Your task to perform on an android device: turn off smart reply in the gmail app Image 0: 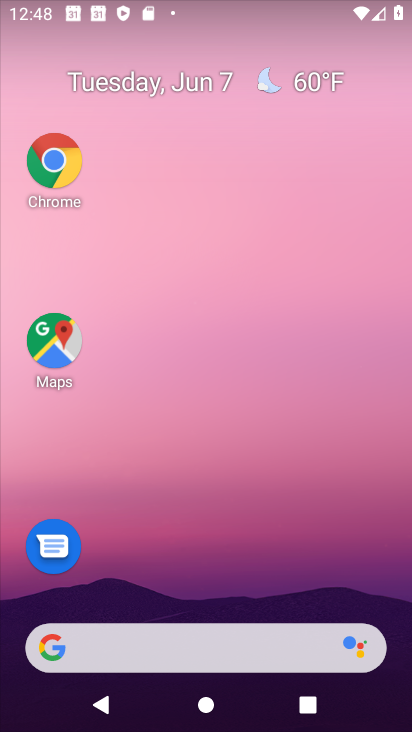
Step 0: drag from (198, 550) to (282, 113)
Your task to perform on an android device: turn off smart reply in the gmail app Image 1: 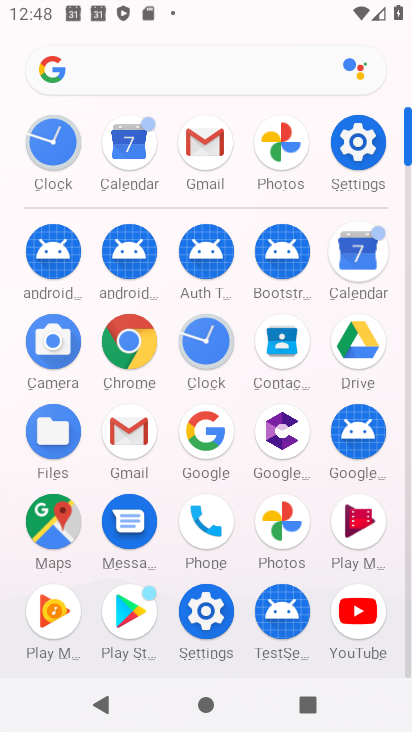
Step 1: click (133, 429)
Your task to perform on an android device: turn off smart reply in the gmail app Image 2: 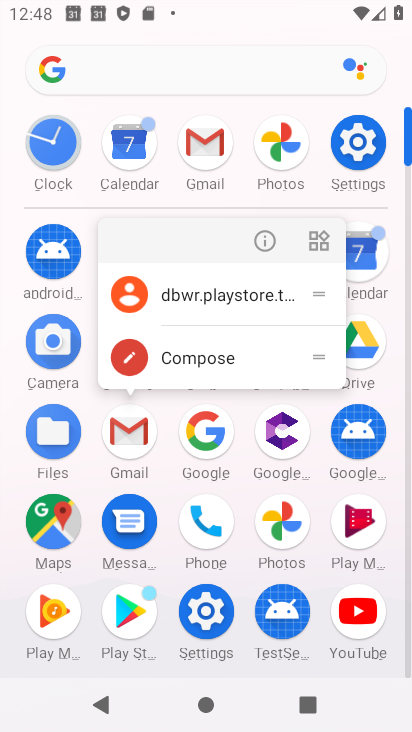
Step 2: click (260, 238)
Your task to perform on an android device: turn off smart reply in the gmail app Image 3: 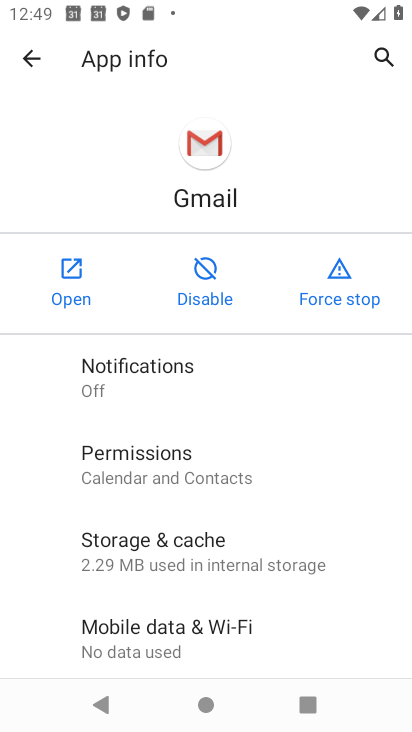
Step 3: click (80, 275)
Your task to perform on an android device: turn off smart reply in the gmail app Image 4: 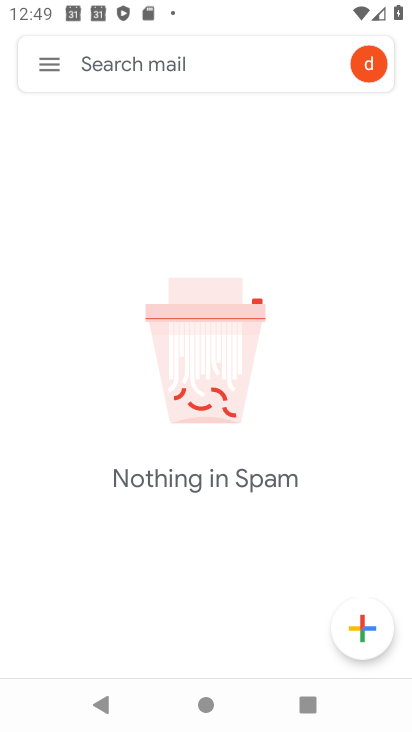
Step 4: click (52, 60)
Your task to perform on an android device: turn off smart reply in the gmail app Image 5: 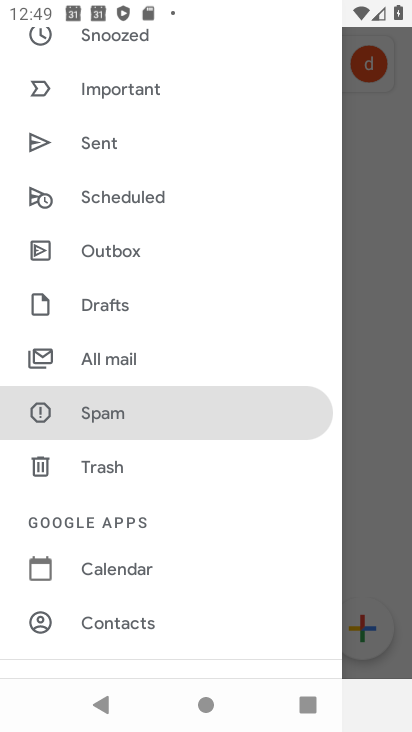
Step 5: drag from (158, 582) to (210, 162)
Your task to perform on an android device: turn off smart reply in the gmail app Image 6: 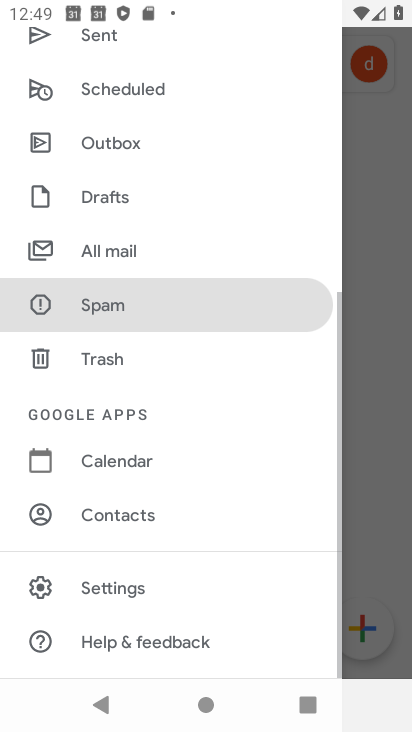
Step 6: click (121, 594)
Your task to perform on an android device: turn off smart reply in the gmail app Image 7: 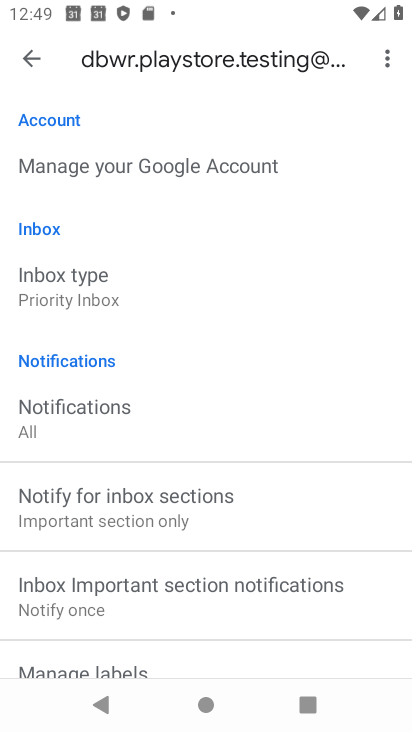
Step 7: drag from (203, 567) to (245, 54)
Your task to perform on an android device: turn off smart reply in the gmail app Image 8: 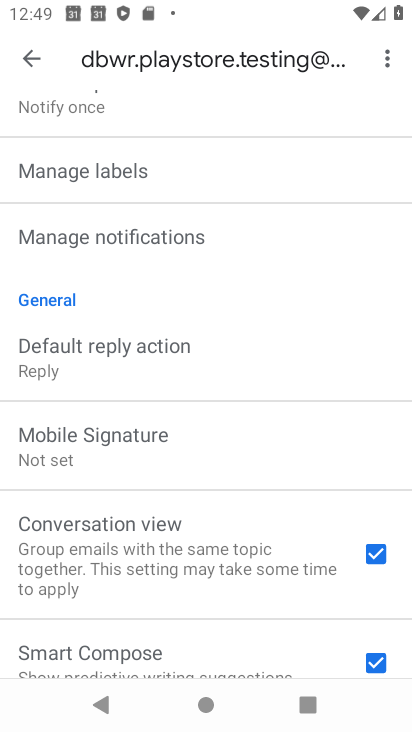
Step 8: drag from (204, 567) to (306, 24)
Your task to perform on an android device: turn off smart reply in the gmail app Image 9: 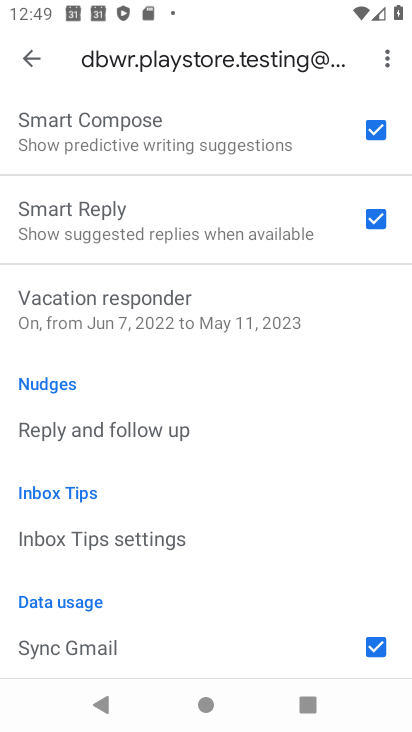
Step 9: click (370, 213)
Your task to perform on an android device: turn off smart reply in the gmail app Image 10: 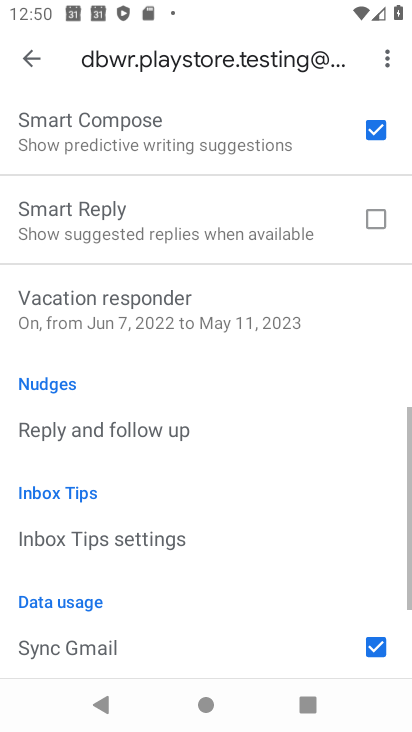
Step 10: task complete